Your task to perform on an android device: manage bookmarks in the chrome app Image 0: 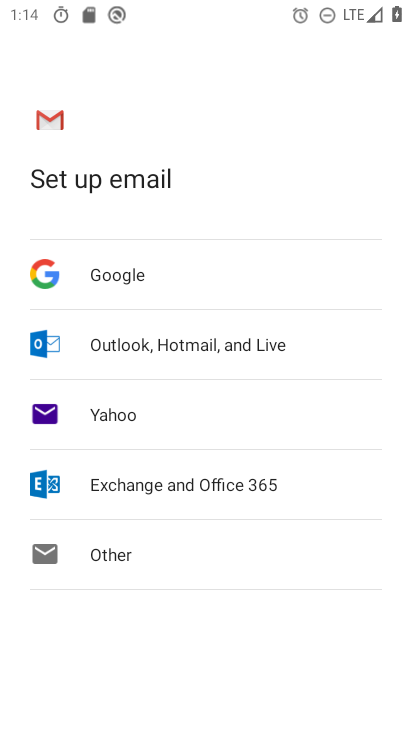
Step 0: press home button
Your task to perform on an android device: manage bookmarks in the chrome app Image 1: 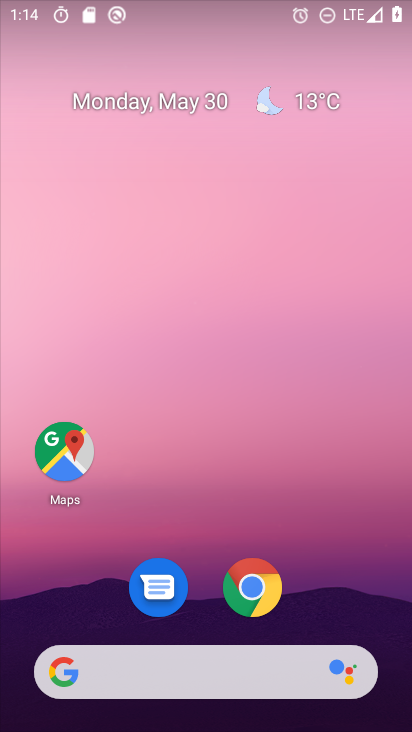
Step 1: click (260, 573)
Your task to perform on an android device: manage bookmarks in the chrome app Image 2: 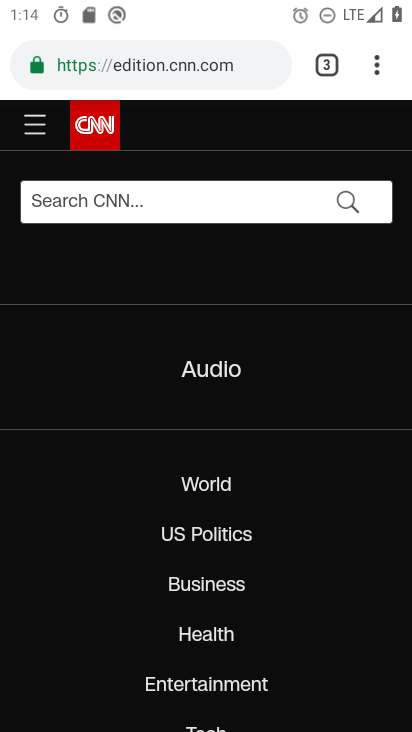
Step 2: drag from (376, 53) to (181, 252)
Your task to perform on an android device: manage bookmarks in the chrome app Image 3: 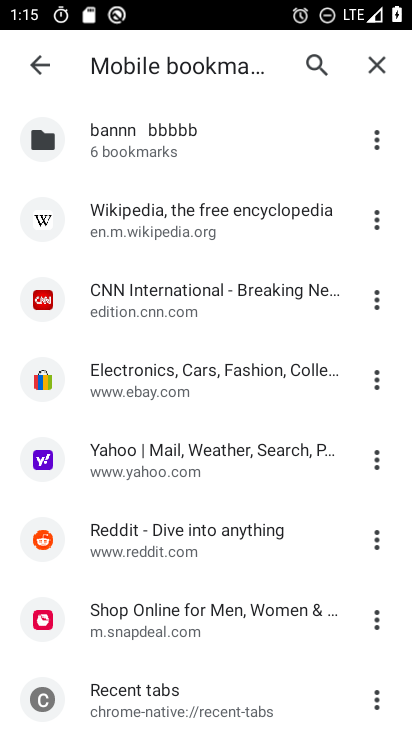
Step 3: click (375, 615)
Your task to perform on an android device: manage bookmarks in the chrome app Image 4: 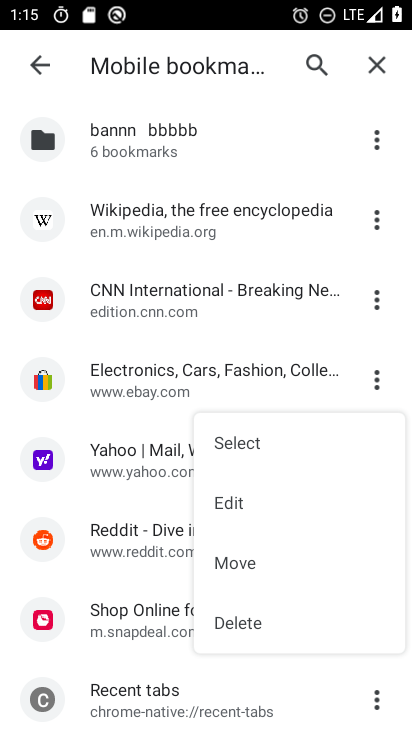
Step 4: click (232, 619)
Your task to perform on an android device: manage bookmarks in the chrome app Image 5: 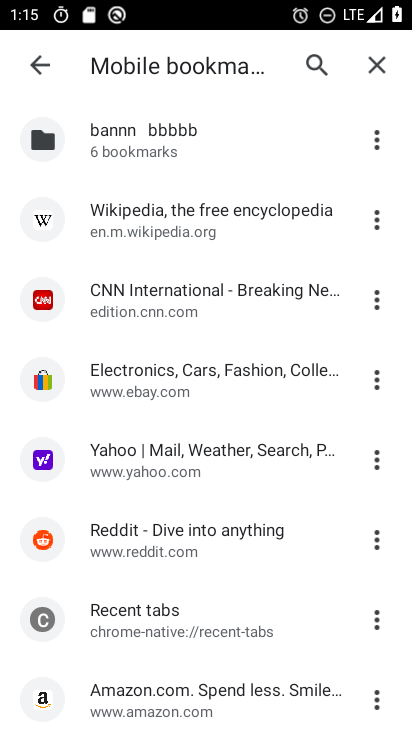
Step 5: task complete